Your task to perform on an android device: empty trash in the gmail app Image 0: 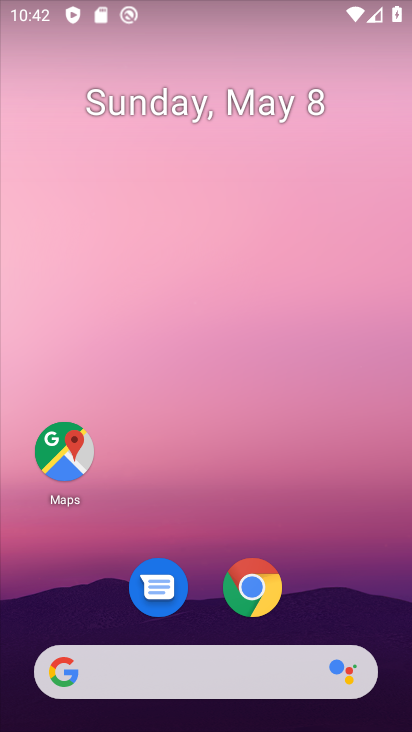
Step 0: drag from (340, 623) to (74, 25)
Your task to perform on an android device: empty trash in the gmail app Image 1: 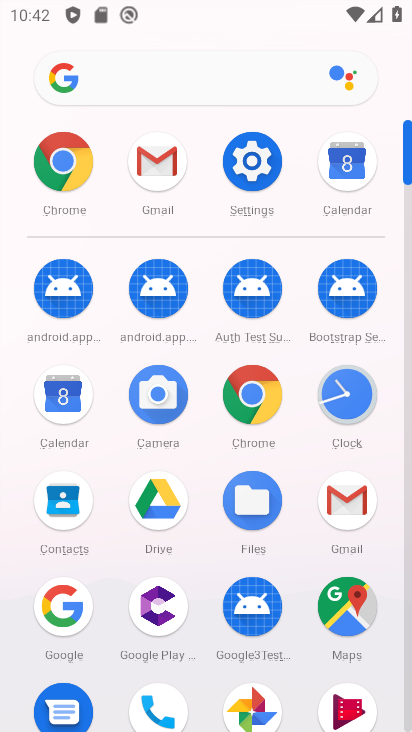
Step 1: click (330, 513)
Your task to perform on an android device: empty trash in the gmail app Image 2: 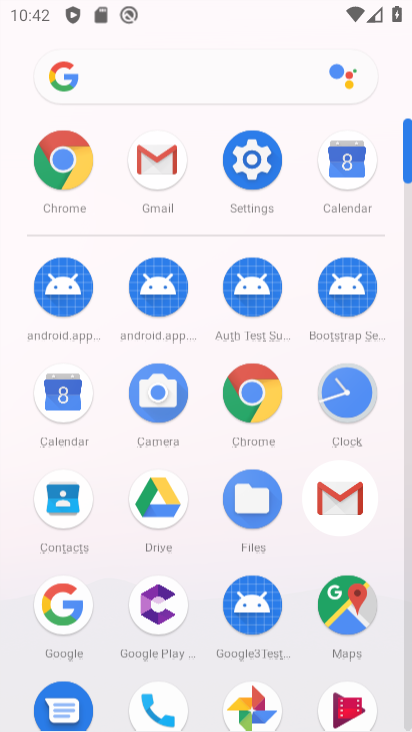
Step 2: click (330, 513)
Your task to perform on an android device: empty trash in the gmail app Image 3: 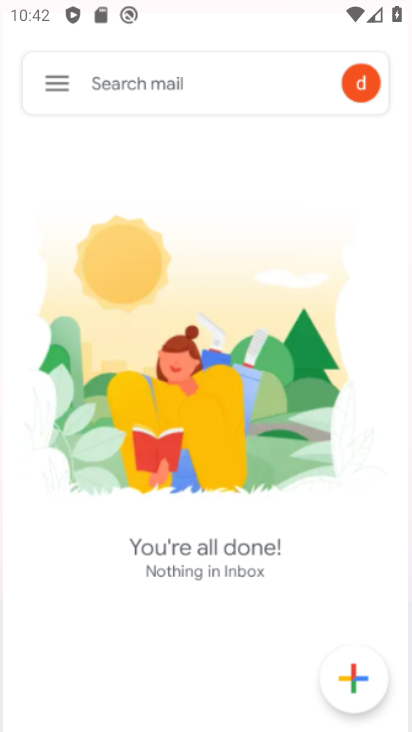
Step 3: click (330, 513)
Your task to perform on an android device: empty trash in the gmail app Image 4: 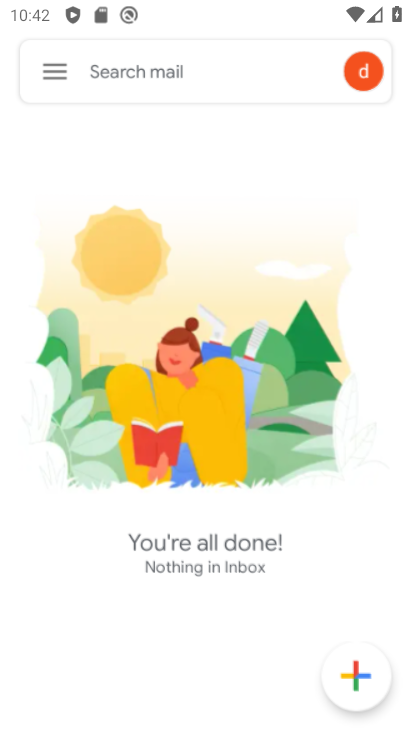
Step 4: click (330, 513)
Your task to perform on an android device: empty trash in the gmail app Image 5: 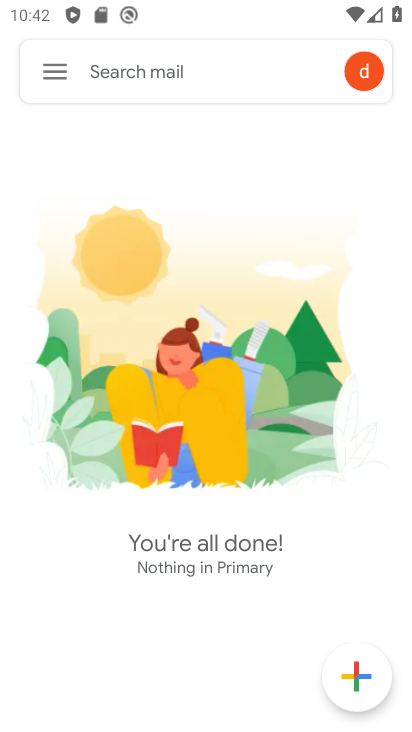
Step 5: drag from (47, 77) to (102, 398)
Your task to perform on an android device: empty trash in the gmail app Image 6: 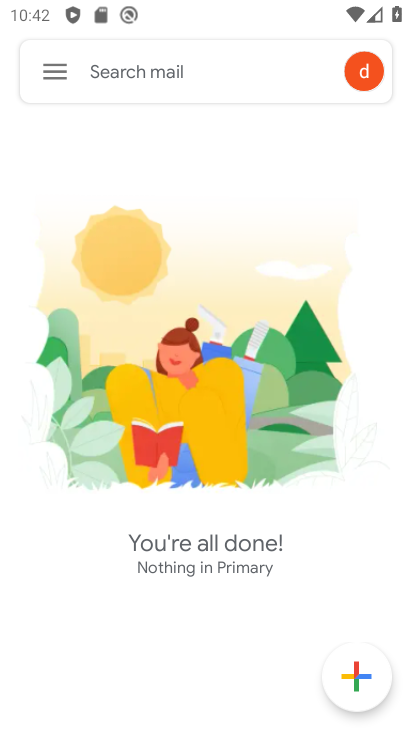
Step 6: click (66, 70)
Your task to perform on an android device: empty trash in the gmail app Image 7: 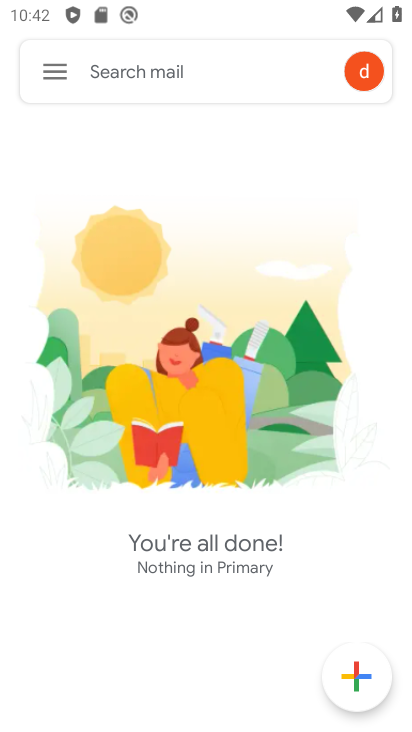
Step 7: click (66, 70)
Your task to perform on an android device: empty trash in the gmail app Image 8: 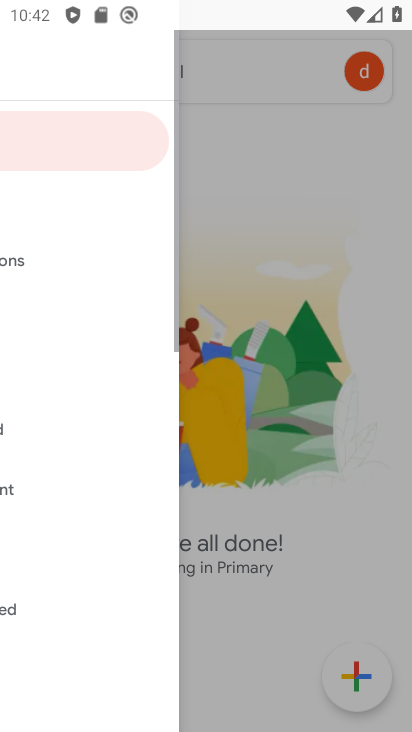
Step 8: click (66, 70)
Your task to perform on an android device: empty trash in the gmail app Image 9: 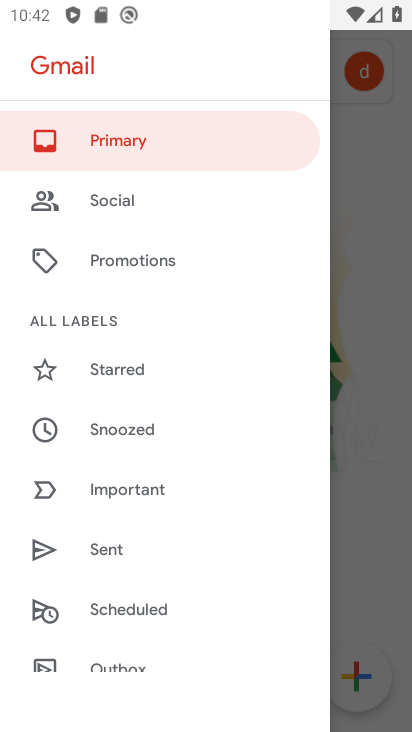
Step 9: drag from (183, 536) to (127, 166)
Your task to perform on an android device: empty trash in the gmail app Image 10: 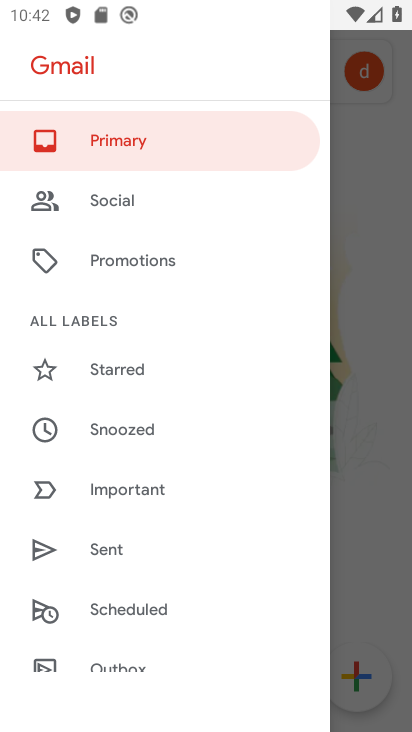
Step 10: drag from (184, 651) to (127, 141)
Your task to perform on an android device: empty trash in the gmail app Image 11: 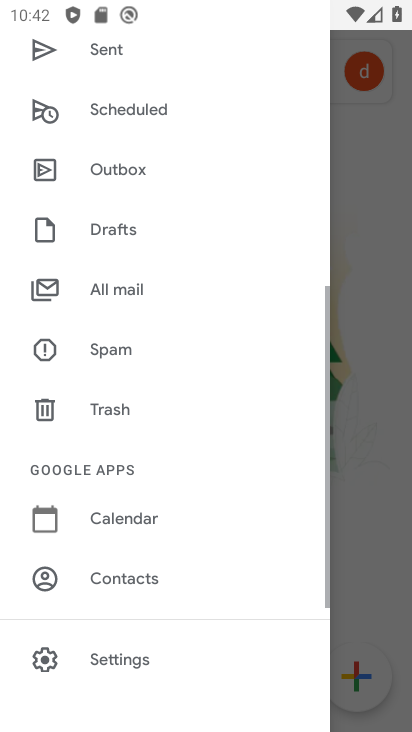
Step 11: drag from (150, 460) to (166, 61)
Your task to perform on an android device: empty trash in the gmail app Image 12: 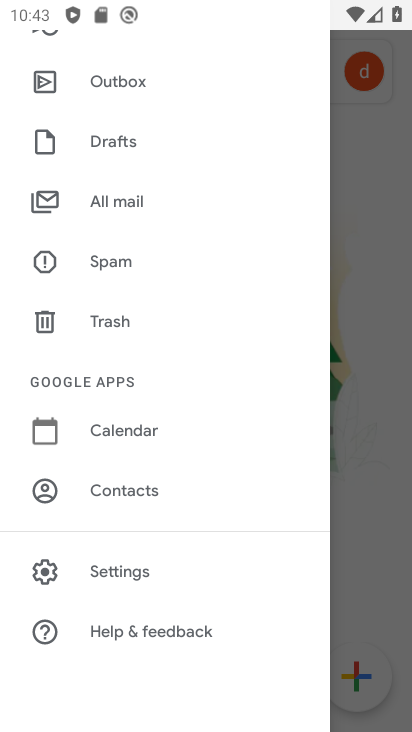
Step 12: click (112, 315)
Your task to perform on an android device: empty trash in the gmail app Image 13: 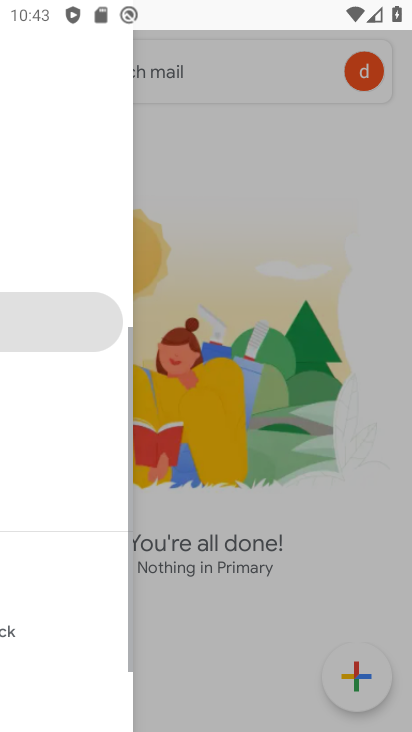
Step 13: click (112, 315)
Your task to perform on an android device: empty trash in the gmail app Image 14: 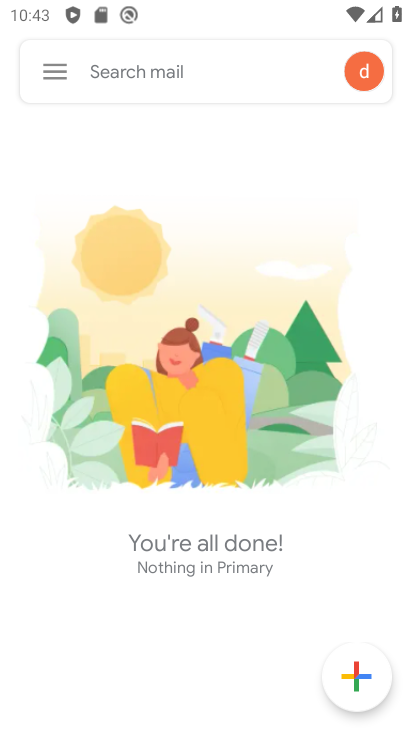
Step 14: click (112, 315)
Your task to perform on an android device: empty trash in the gmail app Image 15: 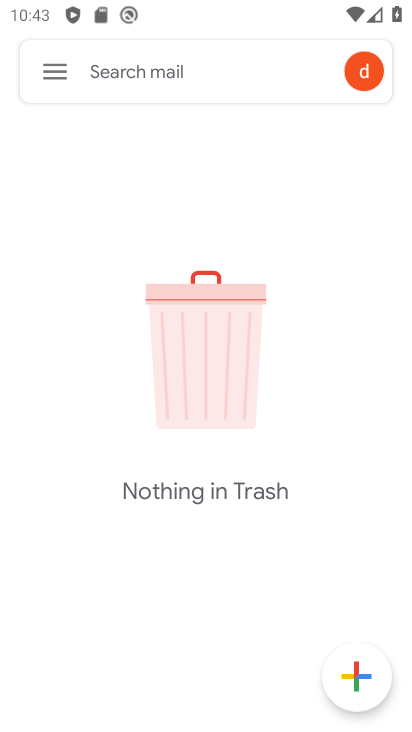
Step 15: task complete